Your task to perform on an android device: Open settings Image 0: 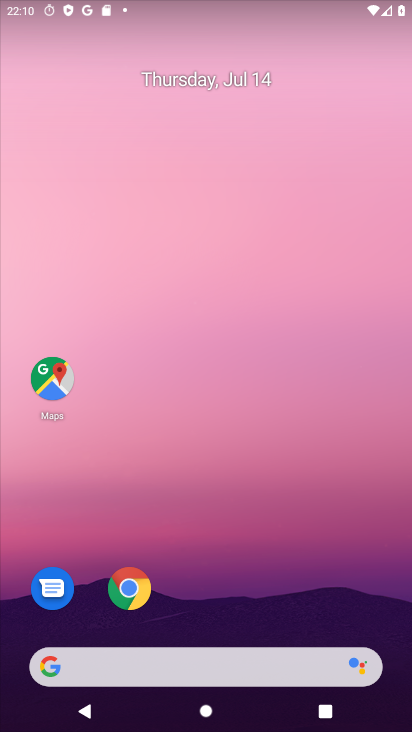
Step 0: drag from (189, 607) to (222, 61)
Your task to perform on an android device: Open settings Image 1: 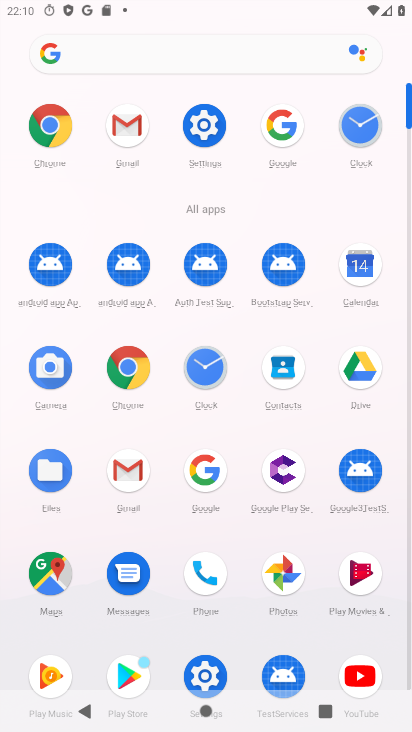
Step 1: click (203, 131)
Your task to perform on an android device: Open settings Image 2: 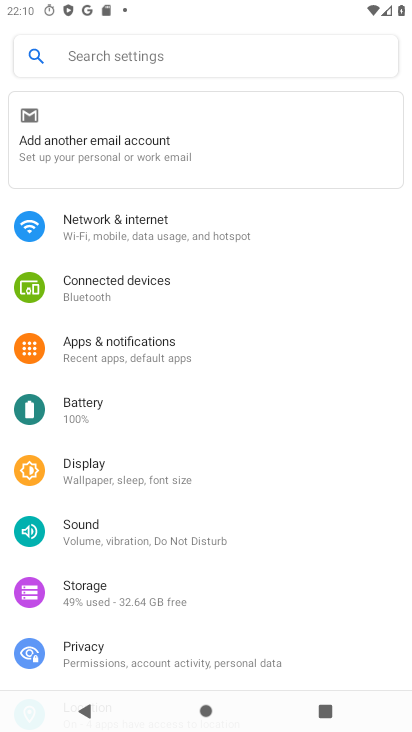
Step 2: task complete